Your task to perform on an android device: Open Google Chrome Image 0: 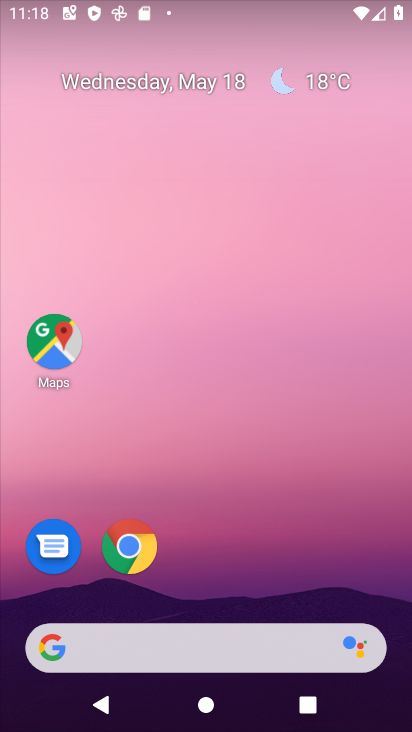
Step 0: click (123, 548)
Your task to perform on an android device: Open Google Chrome Image 1: 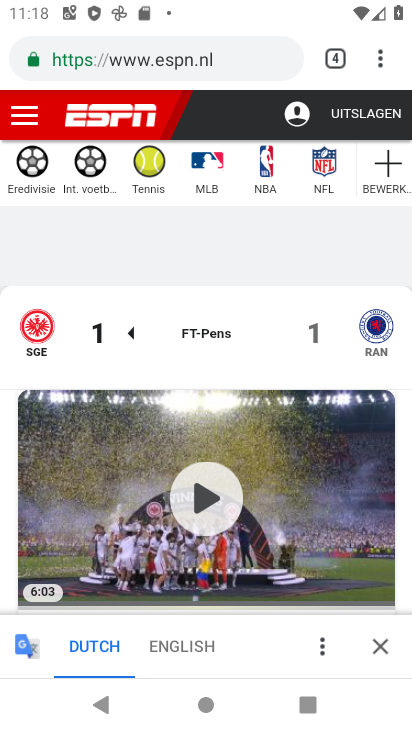
Step 1: task complete